Your task to perform on an android device: change the clock display to analog Image 0: 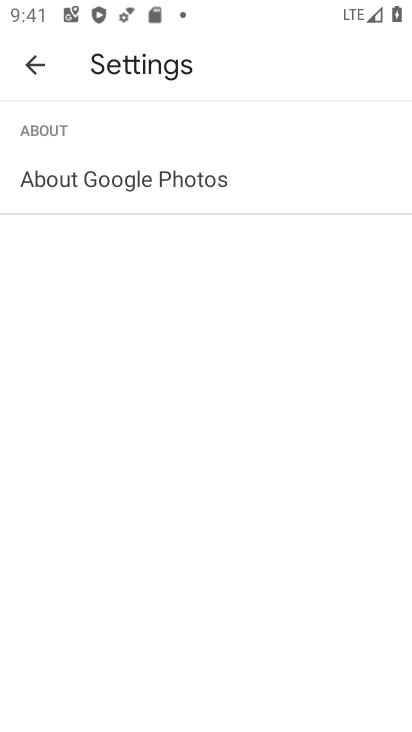
Step 0: press home button
Your task to perform on an android device: change the clock display to analog Image 1: 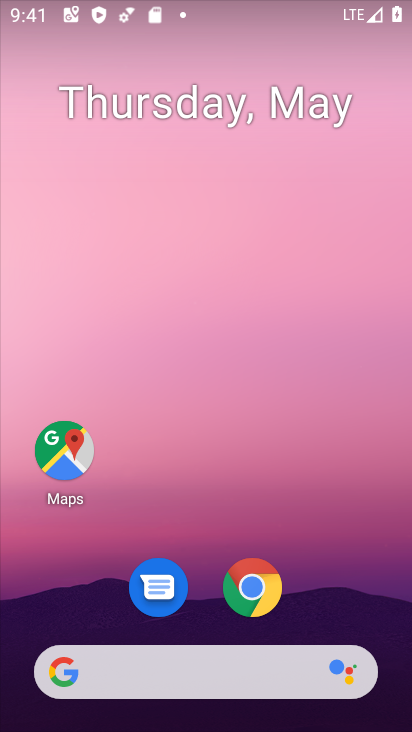
Step 1: drag from (327, 523) to (345, 0)
Your task to perform on an android device: change the clock display to analog Image 2: 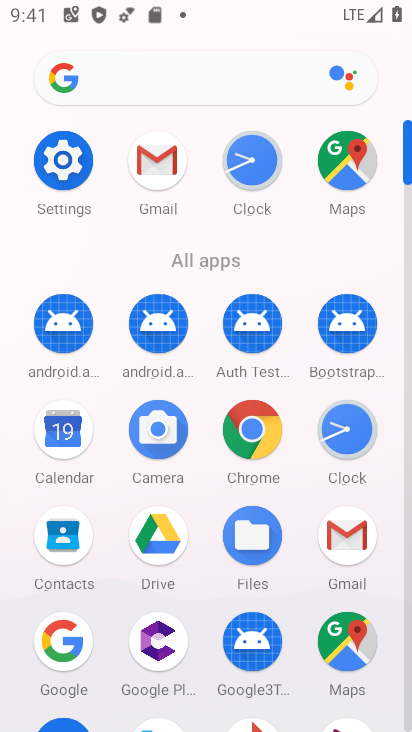
Step 2: click (256, 169)
Your task to perform on an android device: change the clock display to analog Image 3: 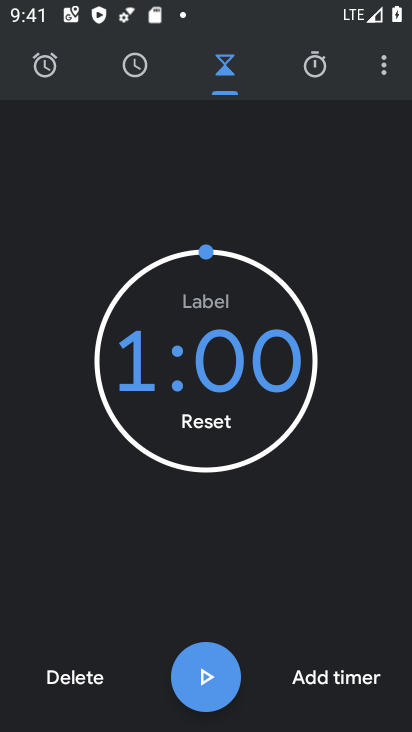
Step 3: click (384, 78)
Your task to perform on an android device: change the clock display to analog Image 4: 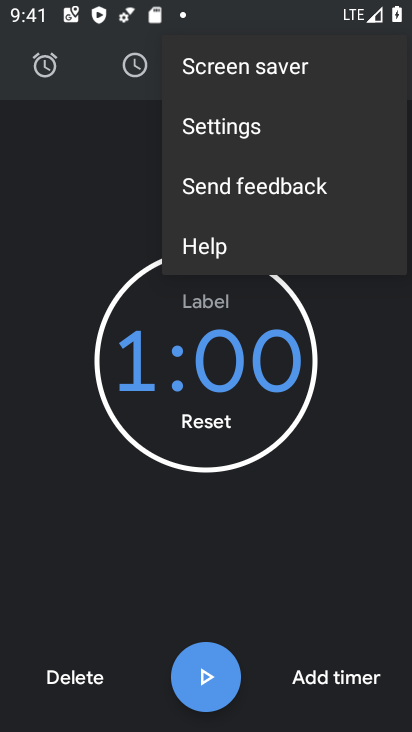
Step 4: click (243, 136)
Your task to perform on an android device: change the clock display to analog Image 5: 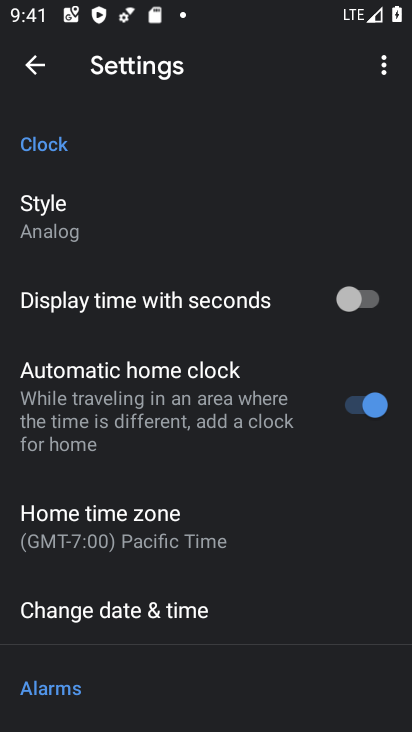
Step 5: task complete